Your task to perform on an android device: What is the capital of Brazil? Image 0: 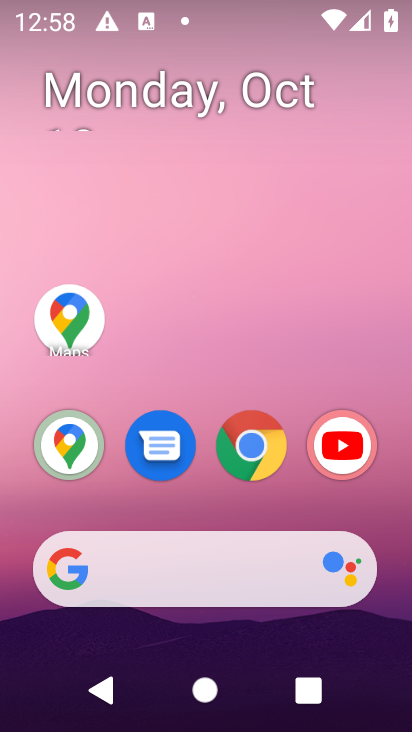
Step 0: click (62, 570)
Your task to perform on an android device: What is the capital of Brazil? Image 1: 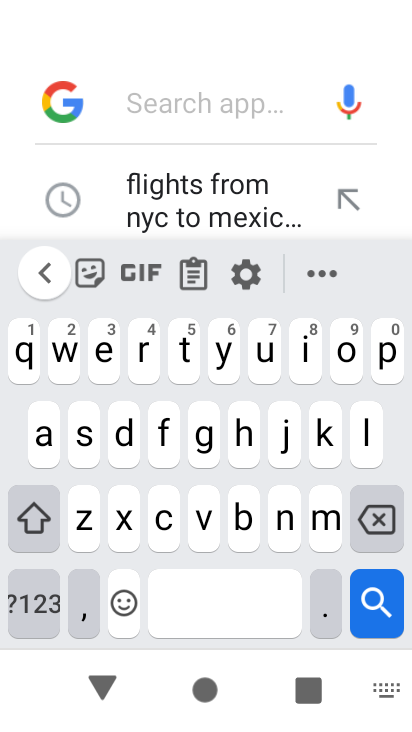
Step 1: type "capital of brazil?"
Your task to perform on an android device: What is the capital of Brazil? Image 2: 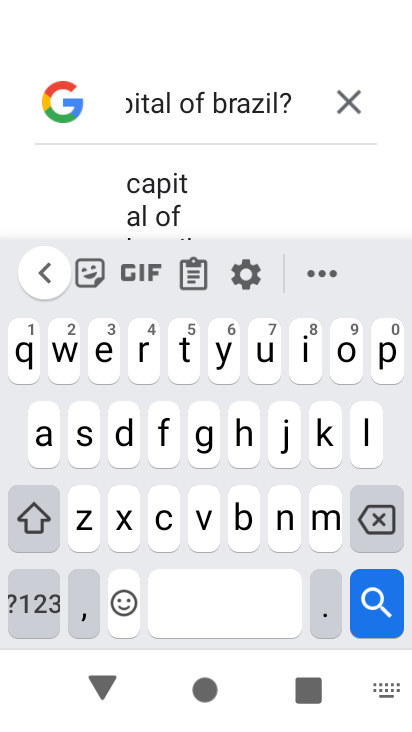
Step 2: click (146, 186)
Your task to perform on an android device: What is the capital of Brazil? Image 3: 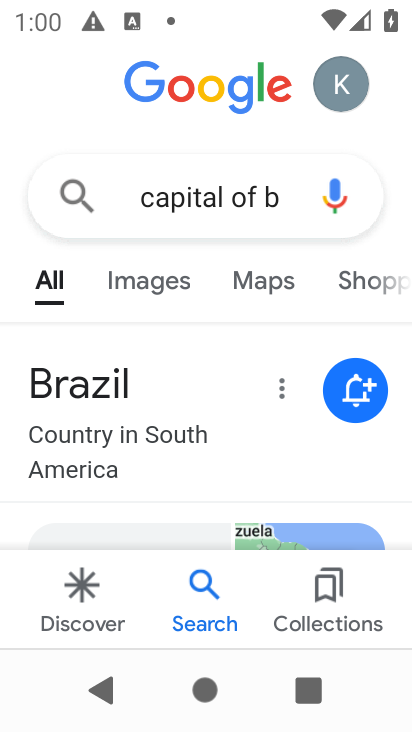
Step 3: task complete